Your task to perform on an android device: check battery use Image 0: 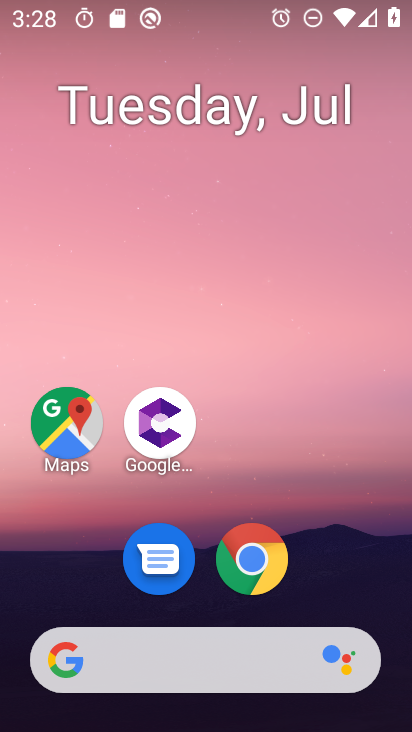
Step 0: drag from (363, 535) to (363, 73)
Your task to perform on an android device: check battery use Image 1: 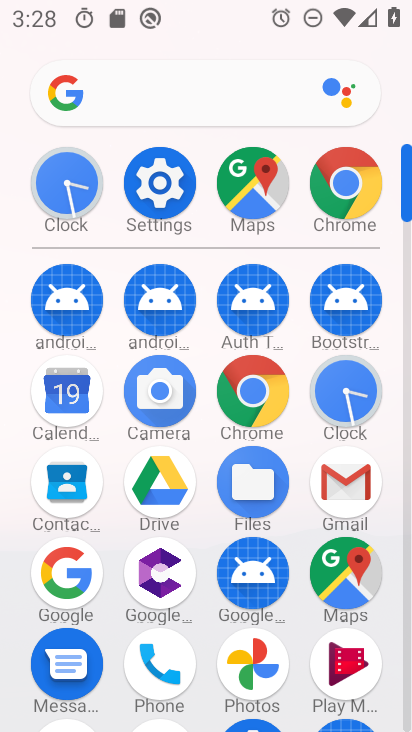
Step 1: click (171, 195)
Your task to perform on an android device: check battery use Image 2: 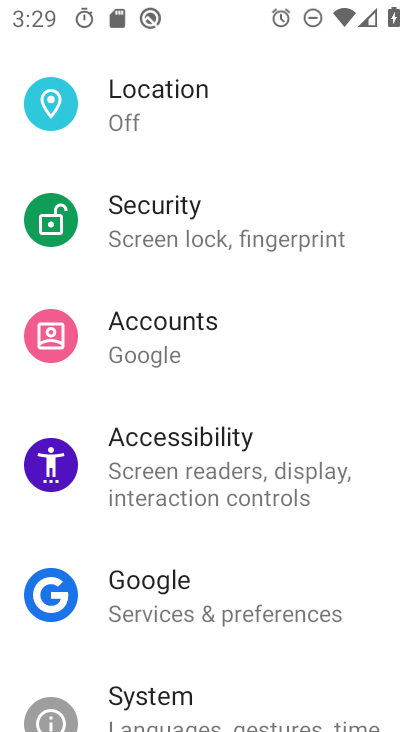
Step 2: drag from (337, 175) to (357, 285)
Your task to perform on an android device: check battery use Image 3: 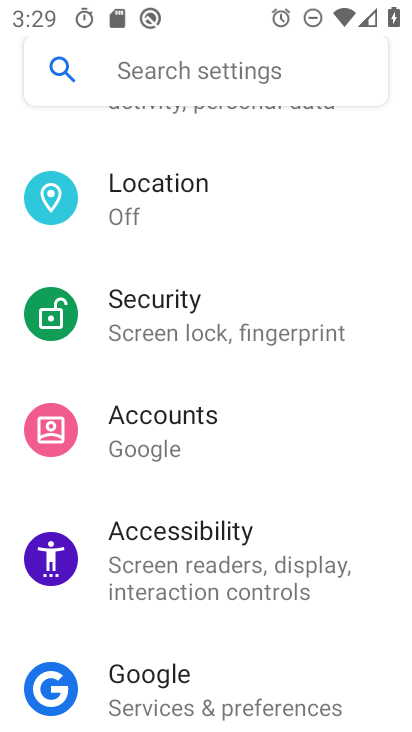
Step 3: drag from (363, 185) to (365, 281)
Your task to perform on an android device: check battery use Image 4: 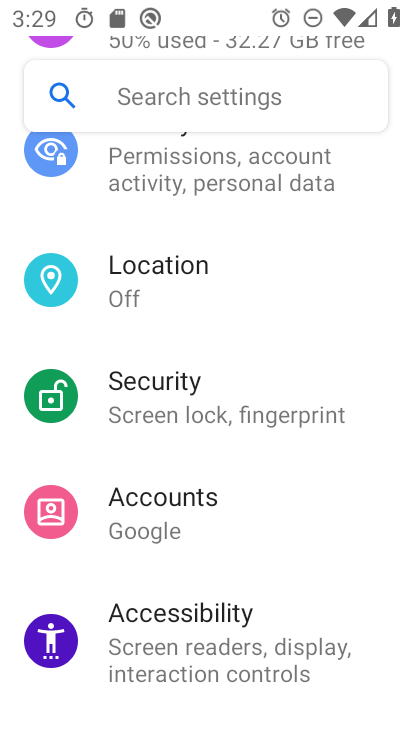
Step 4: drag from (372, 178) to (372, 280)
Your task to perform on an android device: check battery use Image 5: 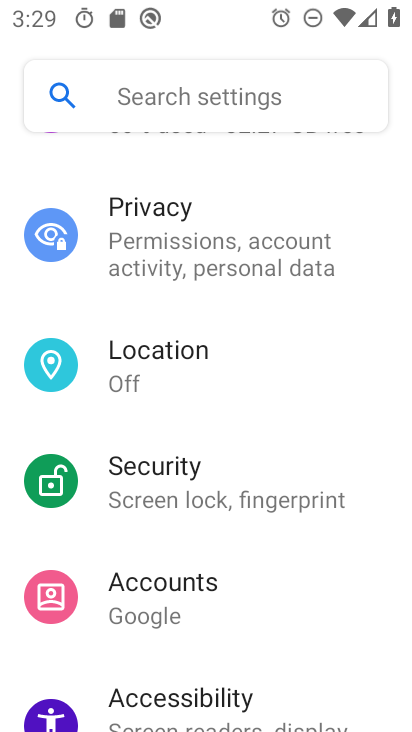
Step 5: drag from (361, 183) to (368, 283)
Your task to perform on an android device: check battery use Image 6: 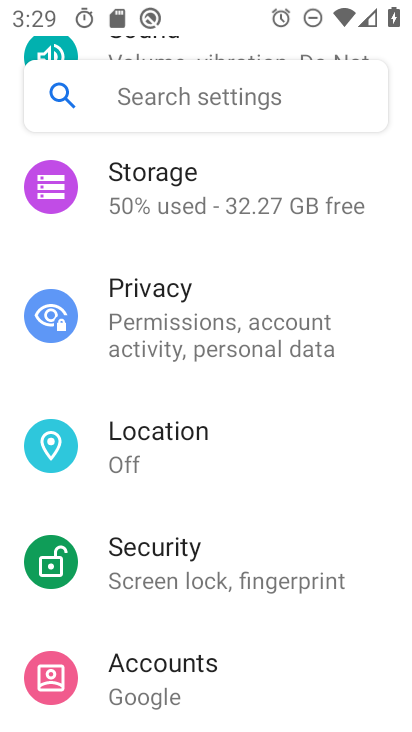
Step 6: drag from (377, 186) to (386, 310)
Your task to perform on an android device: check battery use Image 7: 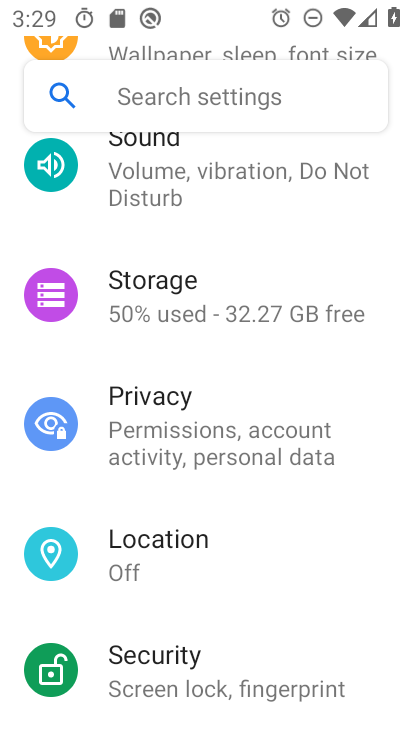
Step 7: drag from (379, 224) to (379, 331)
Your task to perform on an android device: check battery use Image 8: 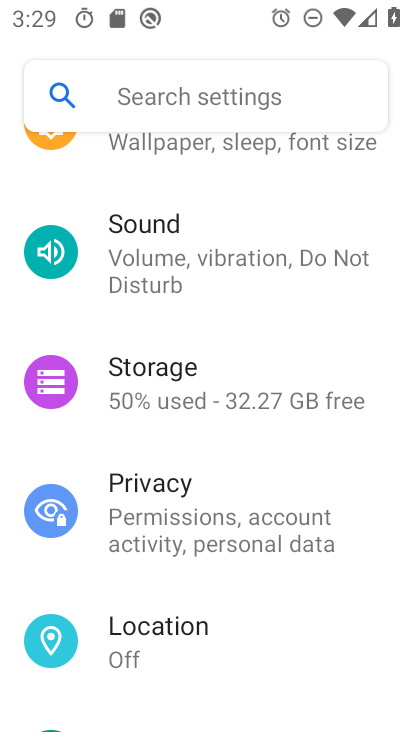
Step 8: drag from (373, 203) to (377, 383)
Your task to perform on an android device: check battery use Image 9: 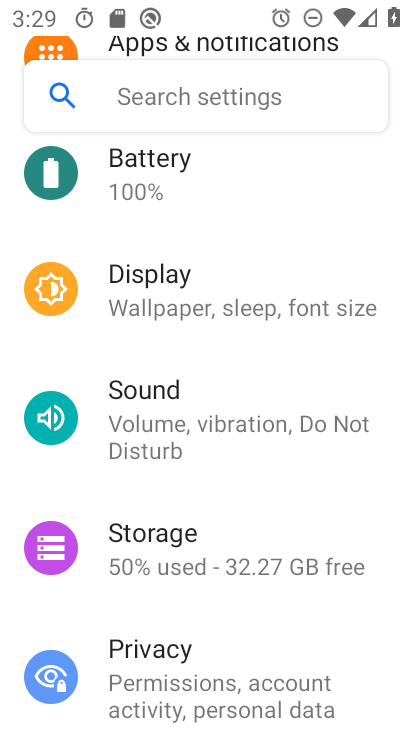
Step 9: drag from (367, 201) to (398, 377)
Your task to perform on an android device: check battery use Image 10: 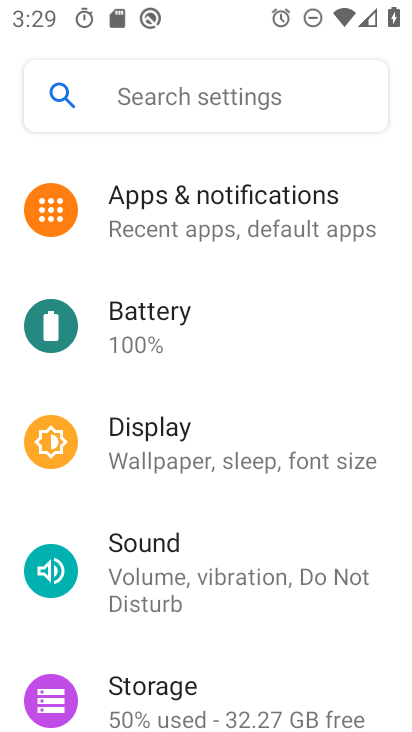
Step 10: click (200, 336)
Your task to perform on an android device: check battery use Image 11: 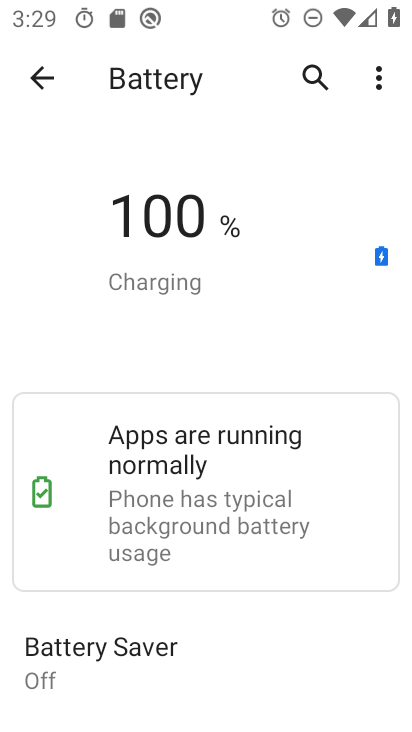
Step 11: click (379, 87)
Your task to perform on an android device: check battery use Image 12: 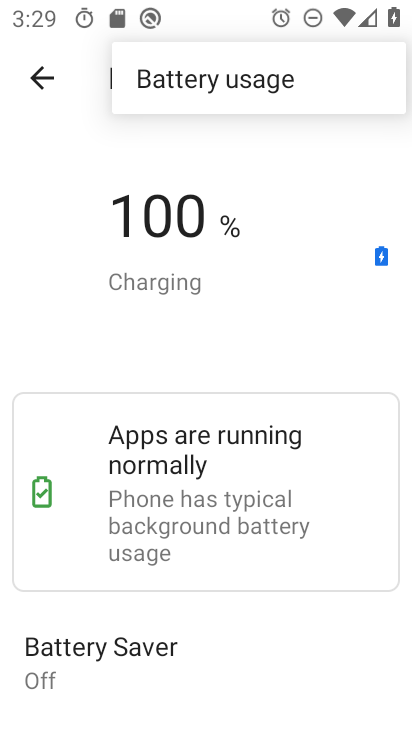
Step 12: click (311, 91)
Your task to perform on an android device: check battery use Image 13: 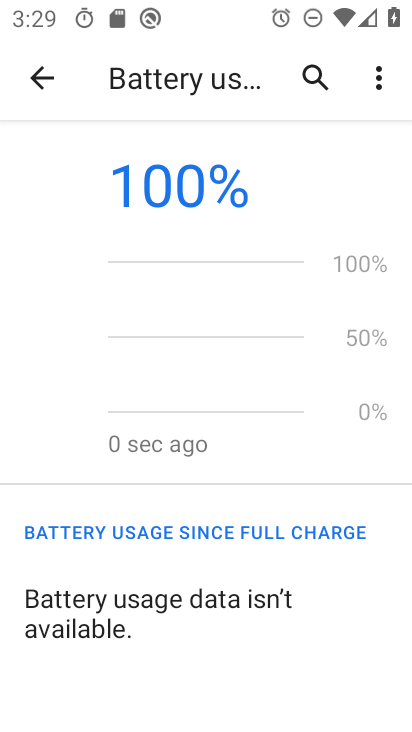
Step 13: task complete